Your task to perform on an android device: turn on sleep mode Image 0: 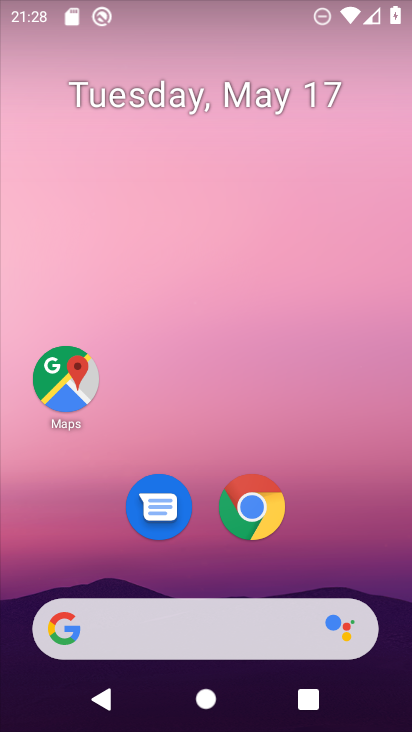
Step 0: drag from (346, 598) to (396, 195)
Your task to perform on an android device: turn on sleep mode Image 1: 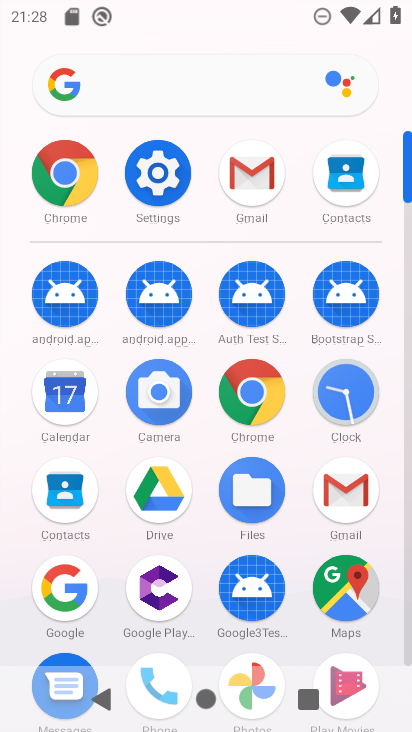
Step 1: click (145, 222)
Your task to perform on an android device: turn on sleep mode Image 2: 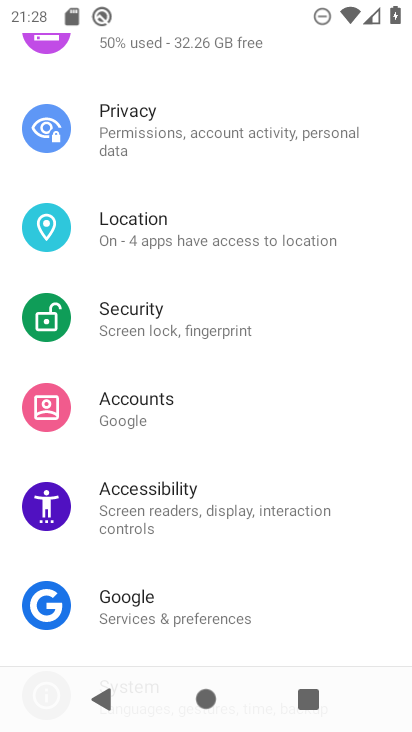
Step 2: drag from (229, 237) to (236, 536)
Your task to perform on an android device: turn on sleep mode Image 3: 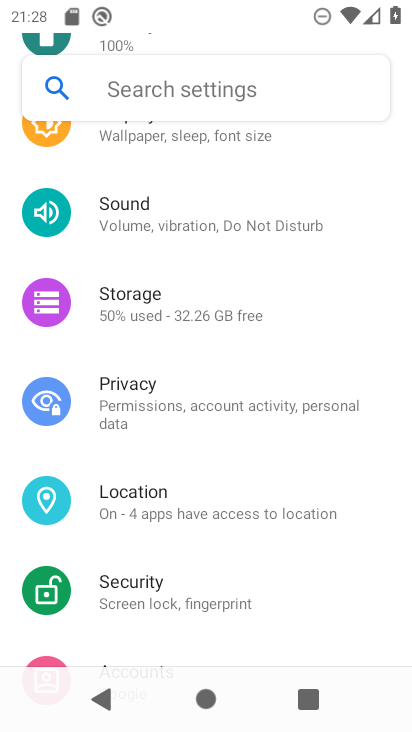
Step 3: drag from (218, 326) to (221, 505)
Your task to perform on an android device: turn on sleep mode Image 4: 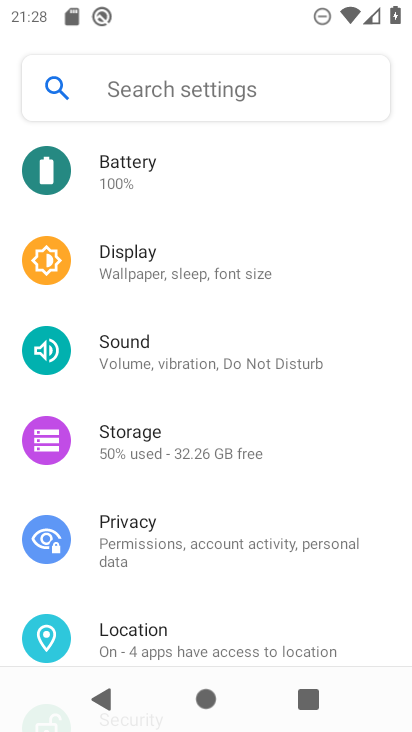
Step 4: click (113, 259)
Your task to perform on an android device: turn on sleep mode Image 5: 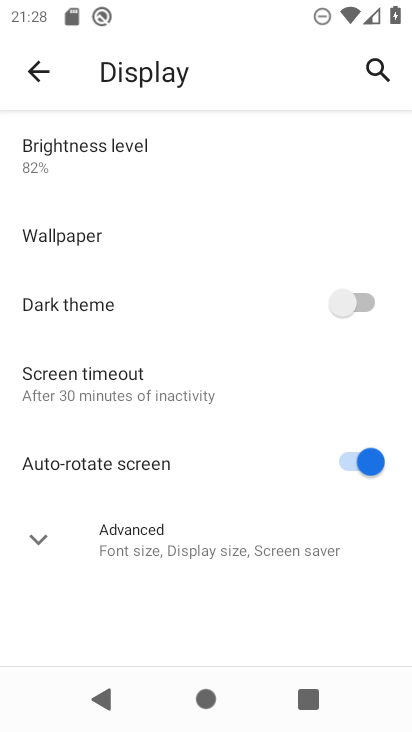
Step 5: click (31, 548)
Your task to perform on an android device: turn on sleep mode Image 6: 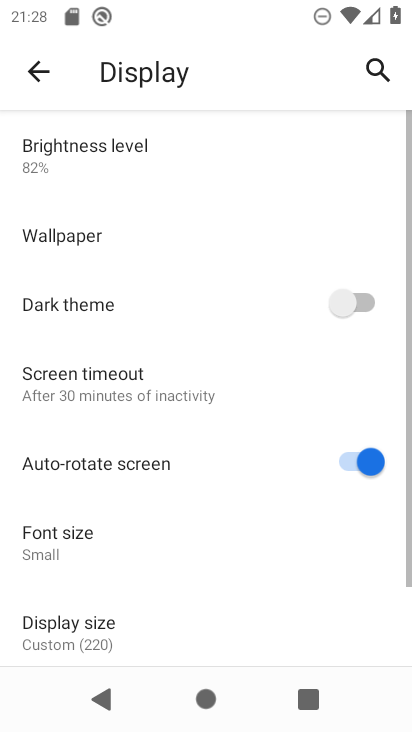
Step 6: task complete